Your task to perform on an android device: Go to Maps Image 0: 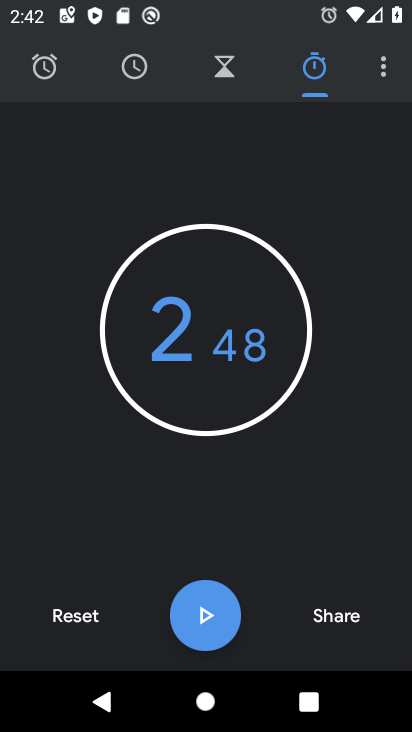
Step 0: press home button
Your task to perform on an android device: Go to Maps Image 1: 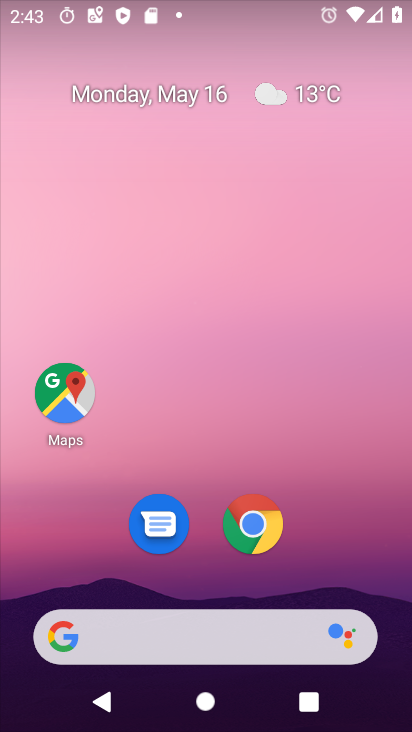
Step 1: click (66, 402)
Your task to perform on an android device: Go to Maps Image 2: 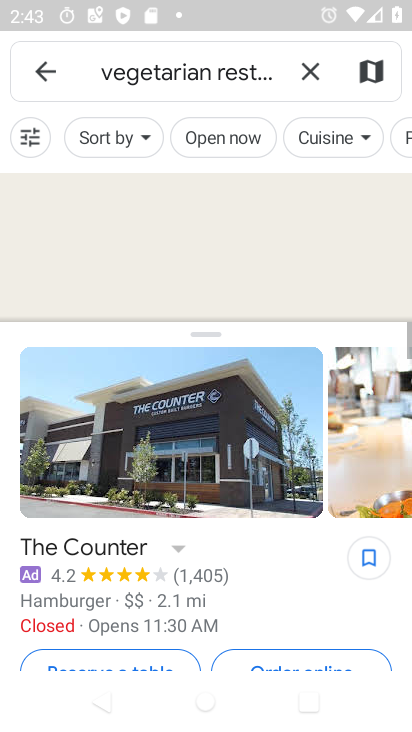
Step 2: click (309, 66)
Your task to perform on an android device: Go to Maps Image 3: 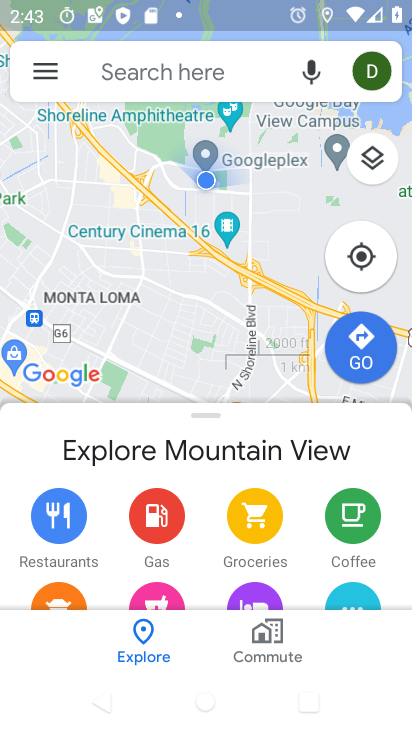
Step 3: task complete